Your task to perform on an android device: Show me popular games on the Play Store Image 0: 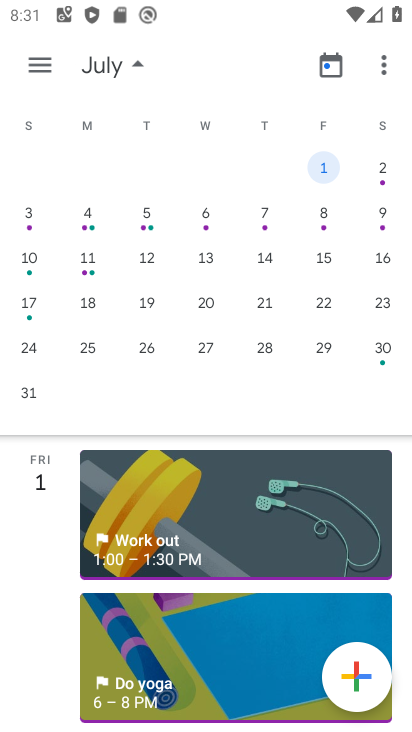
Step 0: click (166, 98)
Your task to perform on an android device: Show me popular games on the Play Store Image 1: 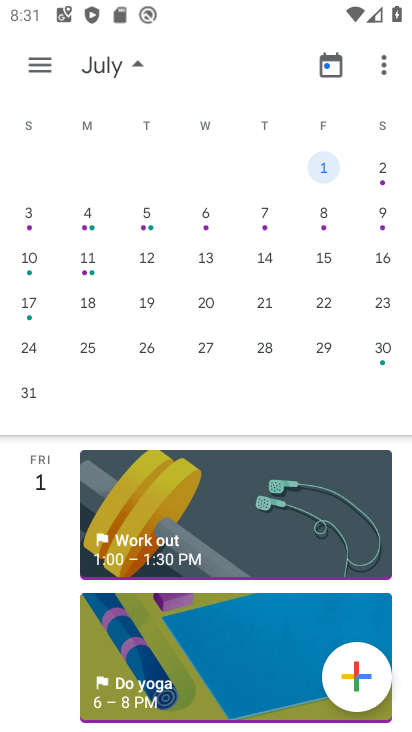
Step 1: press home button
Your task to perform on an android device: Show me popular games on the Play Store Image 2: 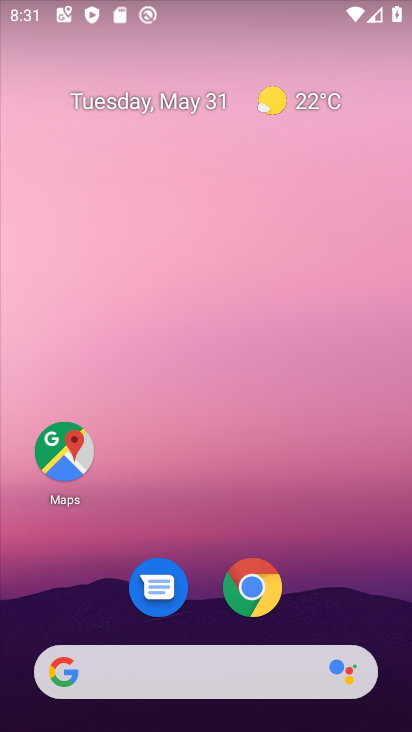
Step 2: drag from (204, 623) to (220, 175)
Your task to perform on an android device: Show me popular games on the Play Store Image 3: 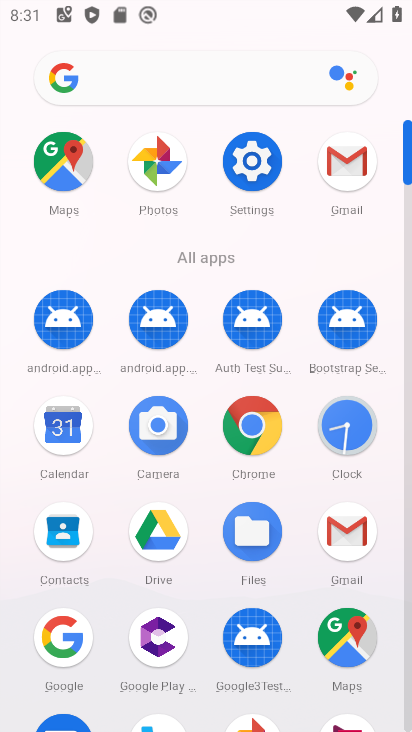
Step 3: drag from (192, 631) to (199, 197)
Your task to perform on an android device: Show me popular games on the Play Store Image 4: 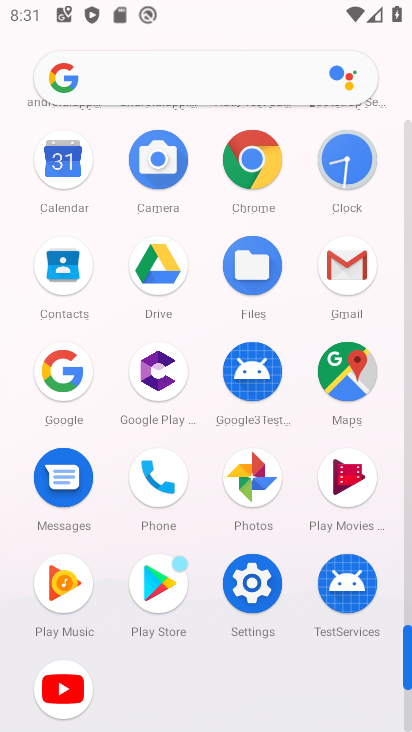
Step 4: click (154, 600)
Your task to perform on an android device: Show me popular games on the Play Store Image 5: 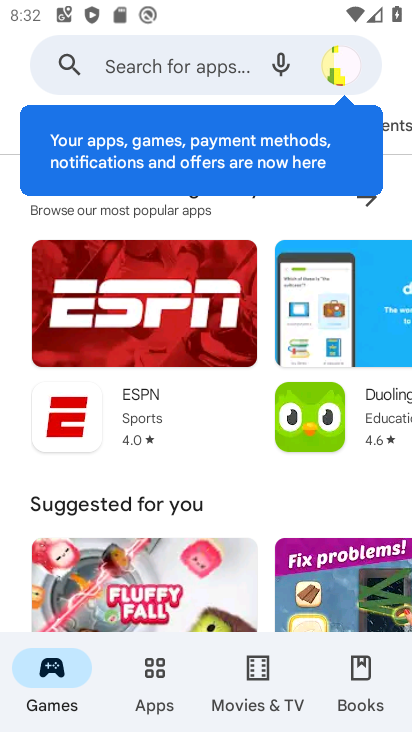
Step 5: click (11, 493)
Your task to perform on an android device: Show me popular games on the Play Store Image 6: 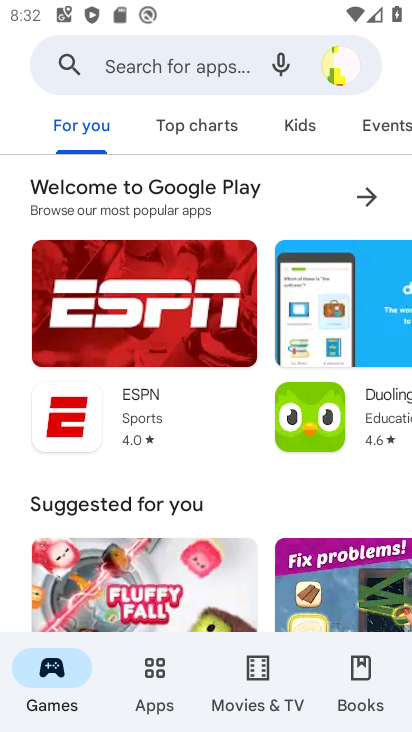
Step 6: click (191, 130)
Your task to perform on an android device: Show me popular games on the Play Store Image 7: 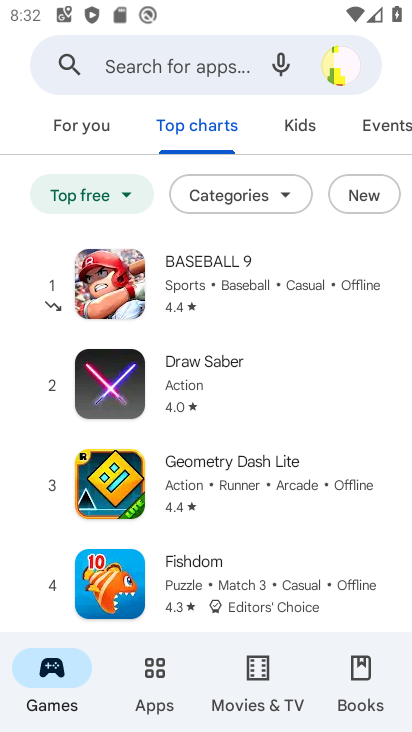
Step 7: task complete